Your task to perform on an android device: Go to wifi settings Image 0: 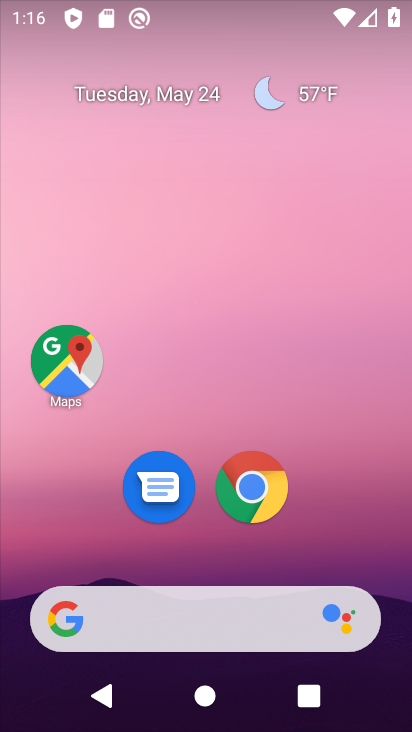
Step 0: drag from (225, 723) to (227, 119)
Your task to perform on an android device: Go to wifi settings Image 1: 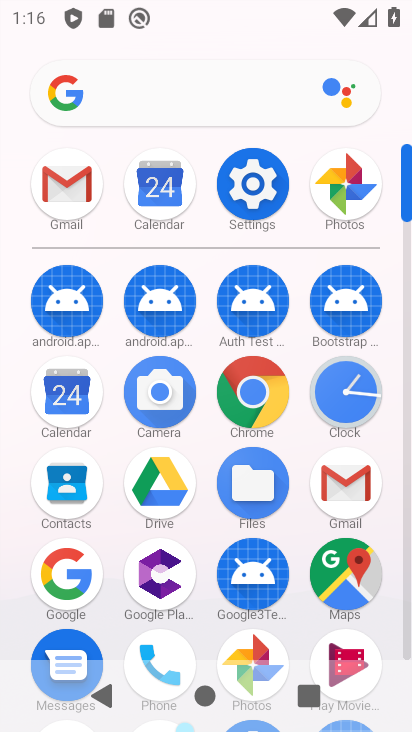
Step 1: click (252, 173)
Your task to perform on an android device: Go to wifi settings Image 2: 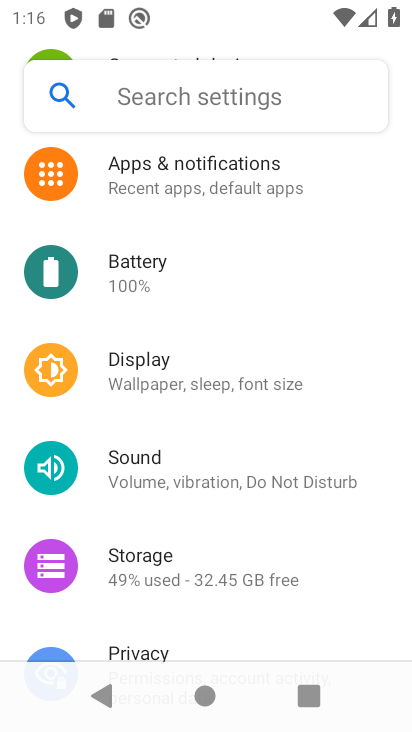
Step 2: drag from (252, 173) to (285, 574)
Your task to perform on an android device: Go to wifi settings Image 3: 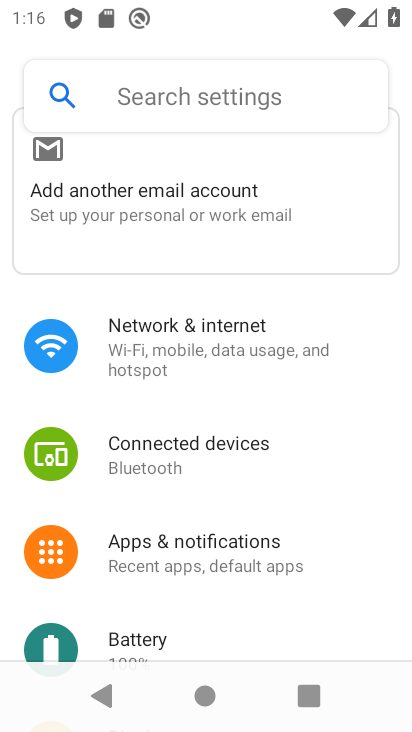
Step 3: click (164, 353)
Your task to perform on an android device: Go to wifi settings Image 4: 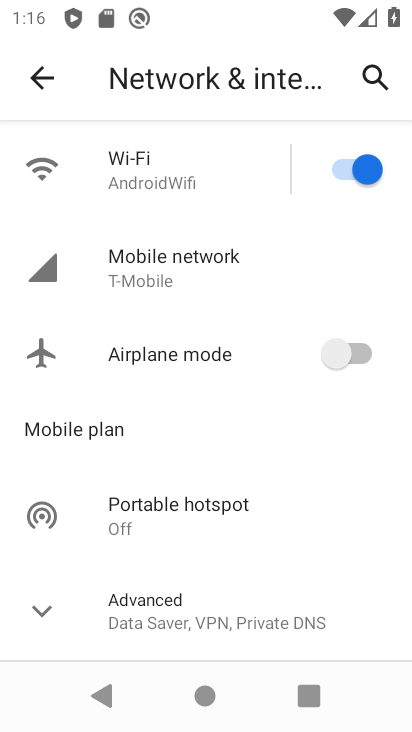
Step 4: click (143, 176)
Your task to perform on an android device: Go to wifi settings Image 5: 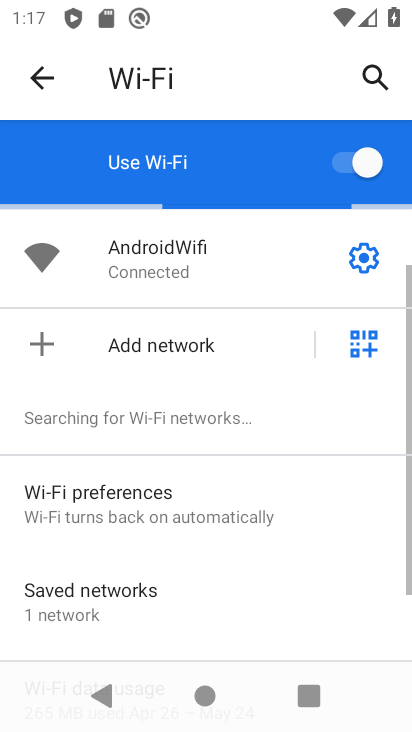
Step 5: task complete